Your task to perform on an android device: change the clock style Image 0: 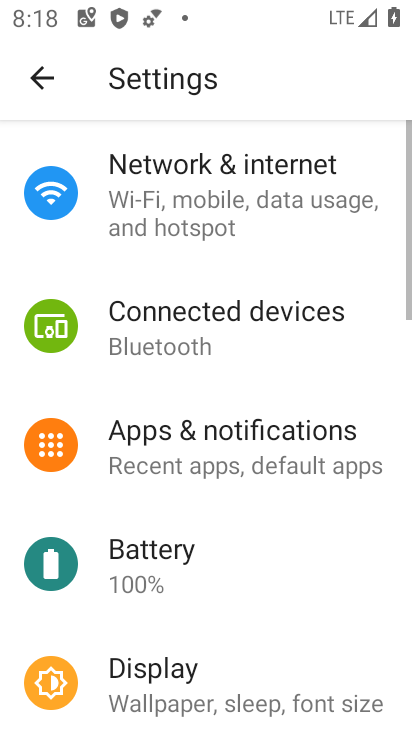
Step 0: press home button
Your task to perform on an android device: change the clock style Image 1: 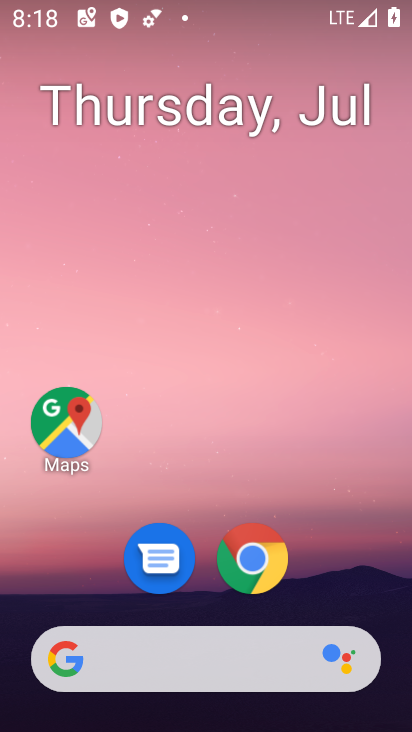
Step 1: drag from (149, 652) to (234, 194)
Your task to perform on an android device: change the clock style Image 2: 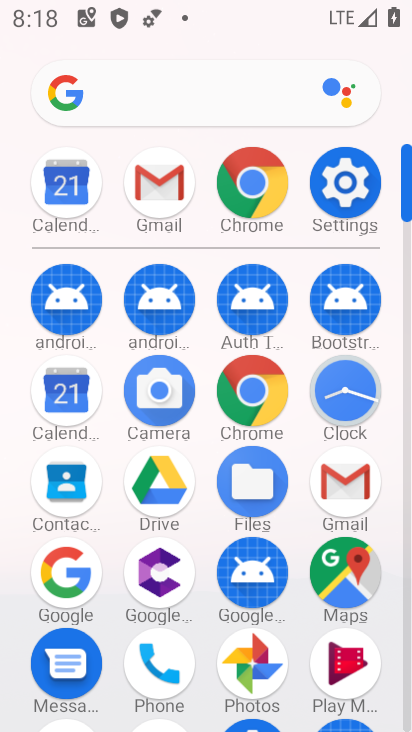
Step 2: click (326, 388)
Your task to perform on an android device: change the clock style Image 3: 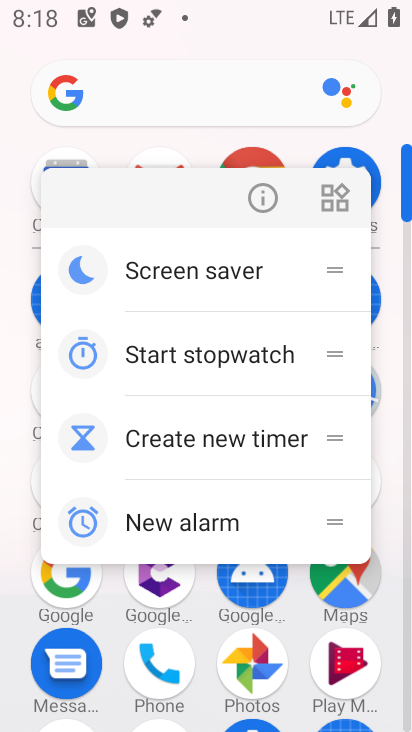
Step 3: click (19, 613)
Your task to perform on an android device: change the clock style Image 4: 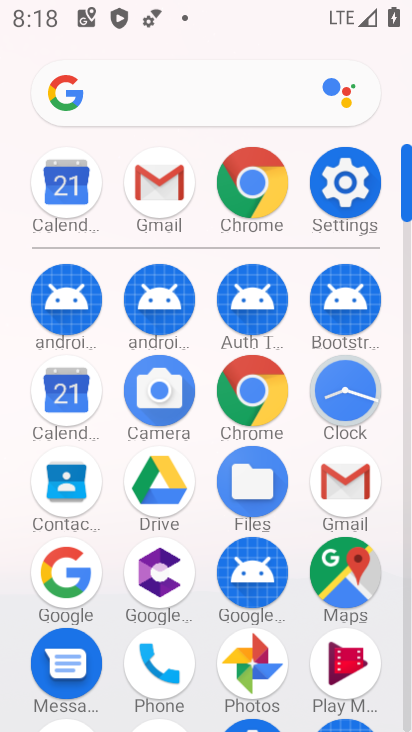
Step 4: click (349, 389)
Your task to perform on an android device: change the clock style Image 5: 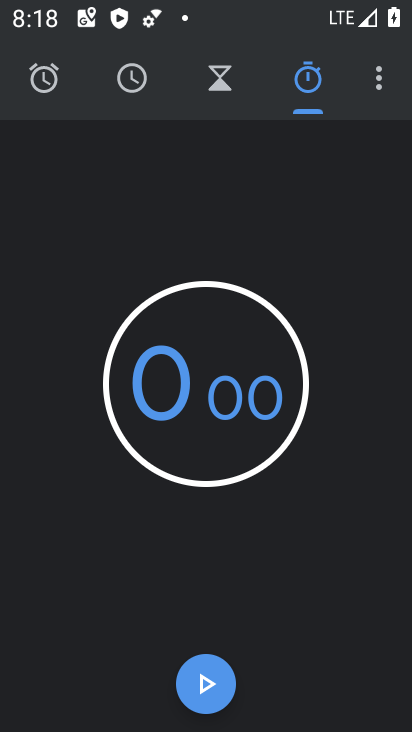
Step 5: click (381, 90)
Your task to perform on an android device: change the clock style Image 6: 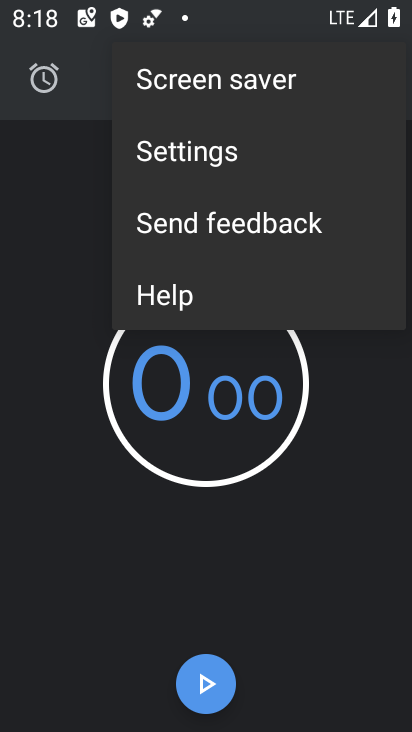
Step 6: click (216, 166)
Your task to perform on an android device: change the clock style Image 7: 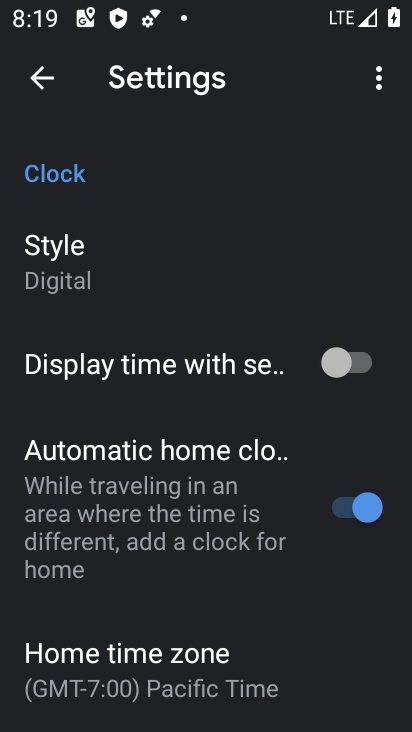
Step 7: click (121, 273)
Your task to perform on an android device: change the clock style Image 8: 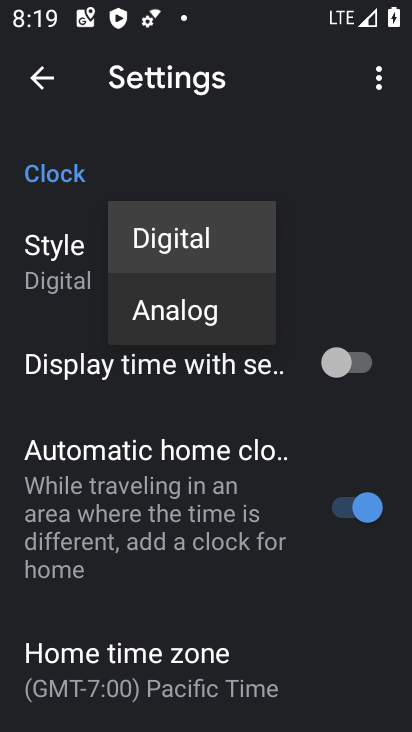
Step 8: click (171, 320)
Your task to perform on an android device: change the clock style Image 9: 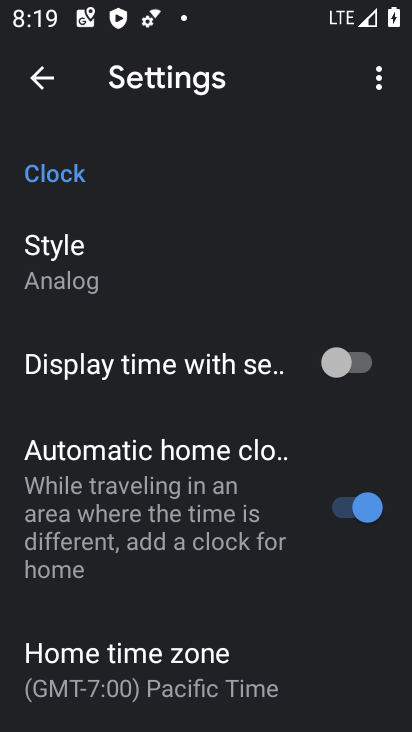
Step 9: task complete